Your task to perform on an android device: Open maps Image 0: 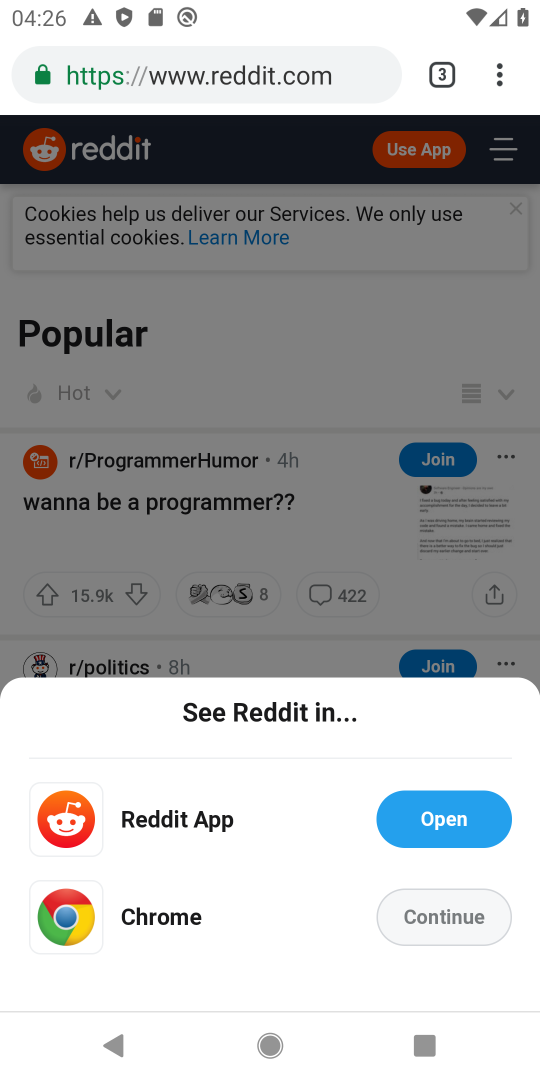
Step 0: press home button
Your task to perform on an android device: Open maps Image 1: 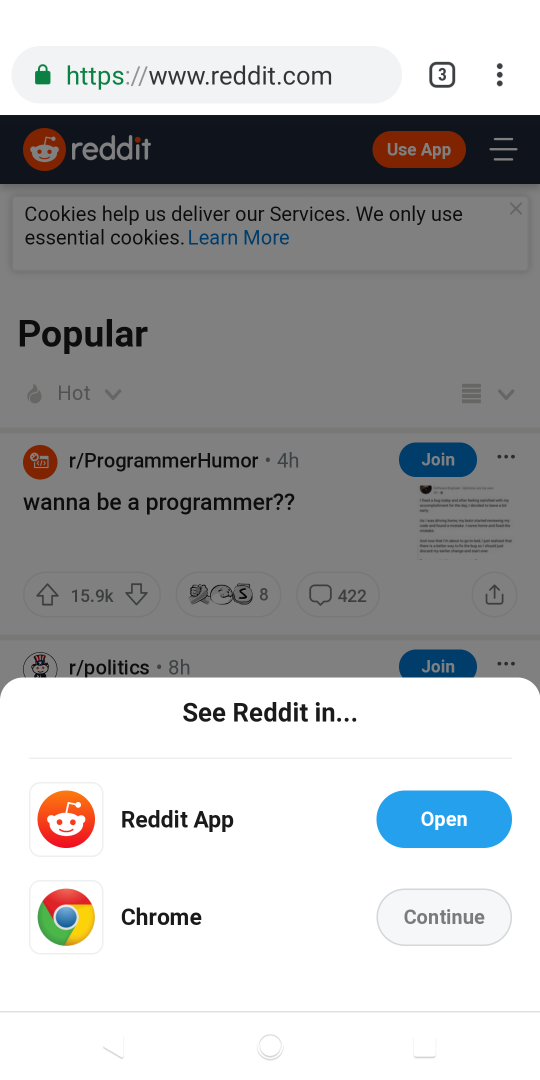
Step 1: press home button
Your task to perform on an android device: Open maps Image 2: 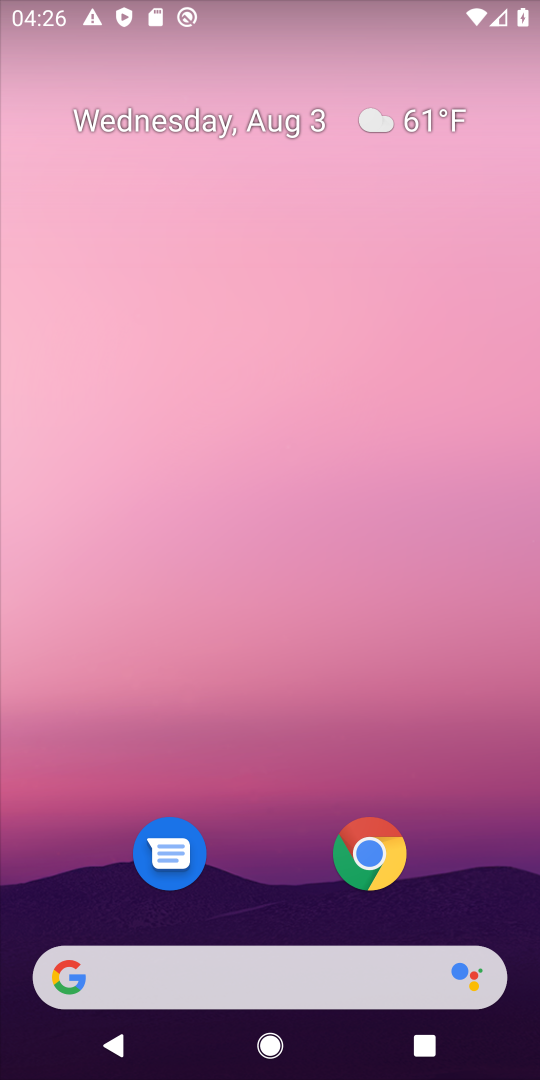
Step 2: drag from (261, 911) to (261, 290)
Your task to perform on an android device: Open maps Image 3: 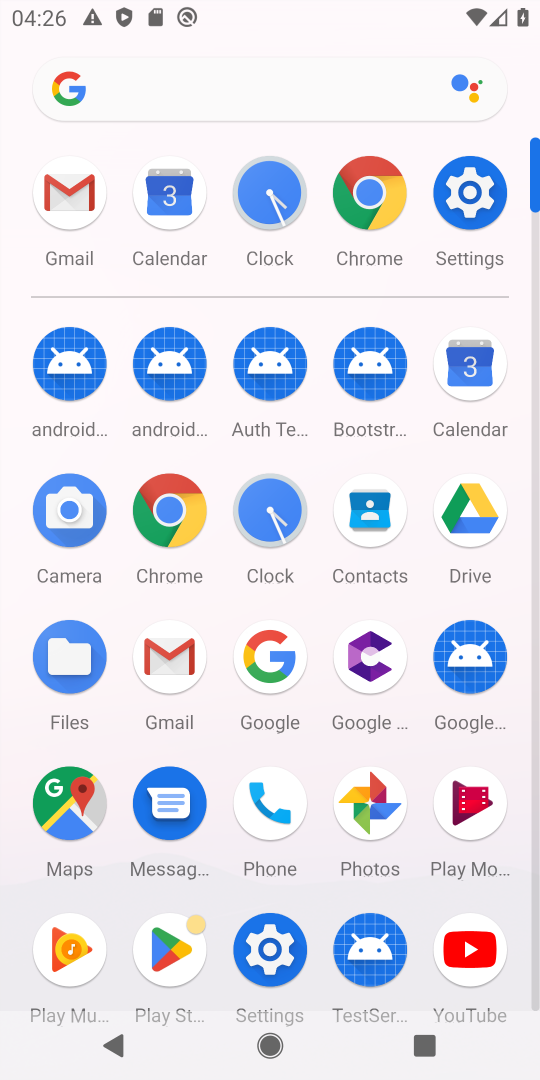
Step 3: click (76, 795)
Your task to perform on an android device: Open maps Image 4: 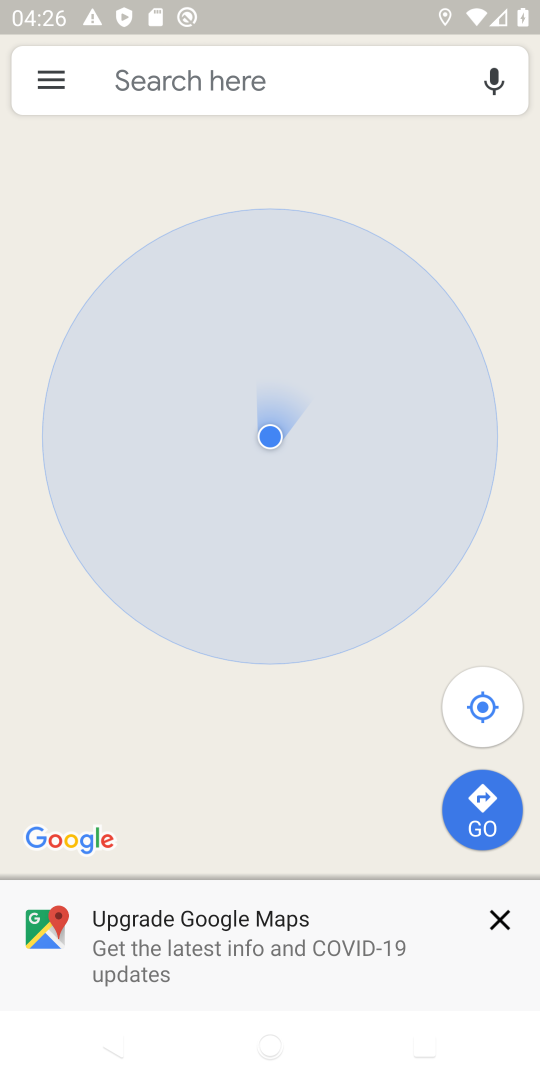
Step 4: task complete